Your task to perform on an android device: Search for sushi restaurants on Maps Image 0: 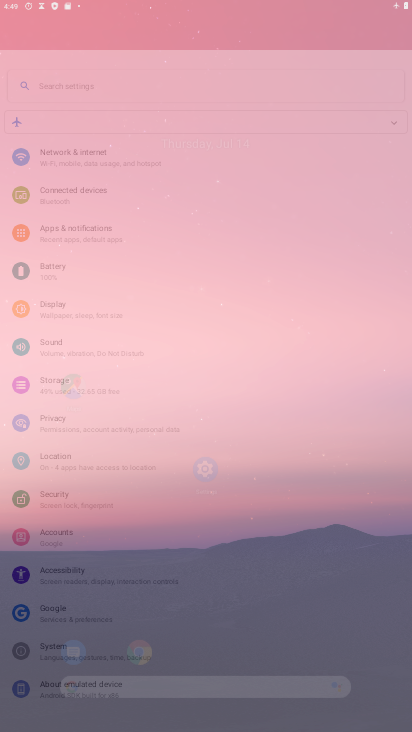
Step 0: drag from (301, 705) to (227, 230)
Your task to perform on an android device: Search for sushi restaurants on Maps Image 1: 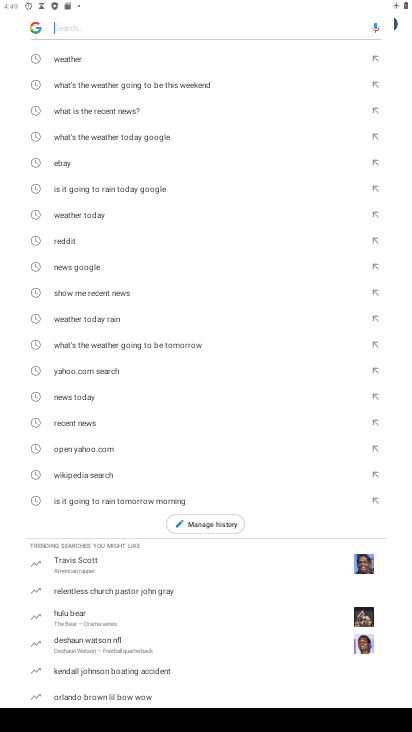
Step 1: press back button
Your task to perform on an android device: Search for sushi restaurants on Maps Image 2: 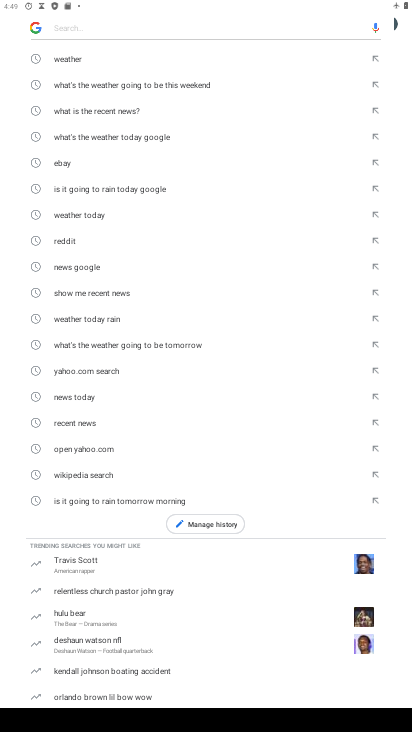
Step 2: press back button
Your task to perform on an android device: Search for sushi restaurants on Maps Image 3: 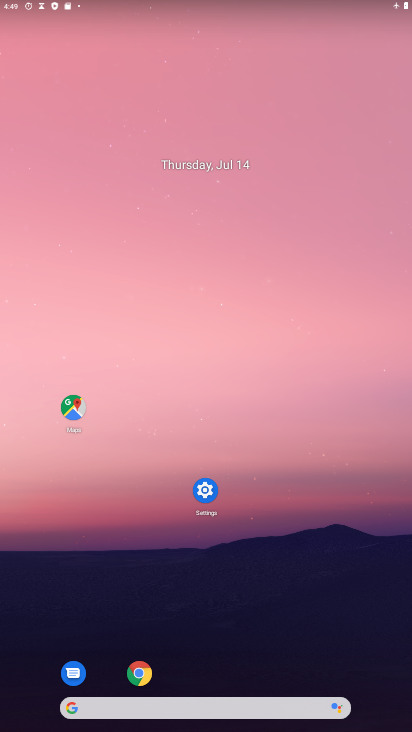
Step 3: drag from (242, 576) to (229, 250)
Your task to perform on an android device: Search for sushi restaurants on Maps Image 4: 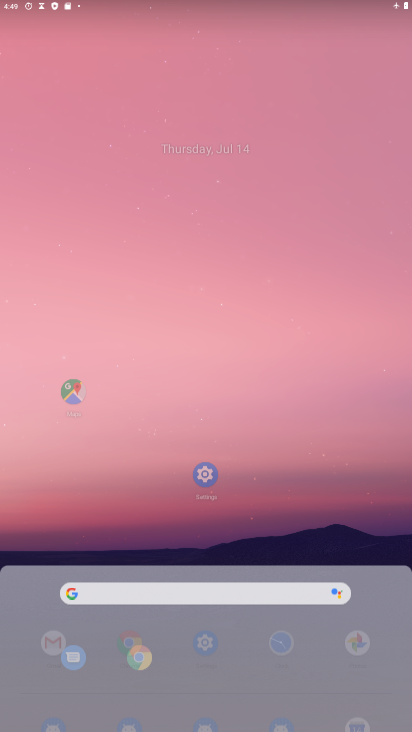
Step 4: drag from (242, 543) to (212, 390)
Your task to perform on an android device: Search for sushi restaurants on Maps Image 5: 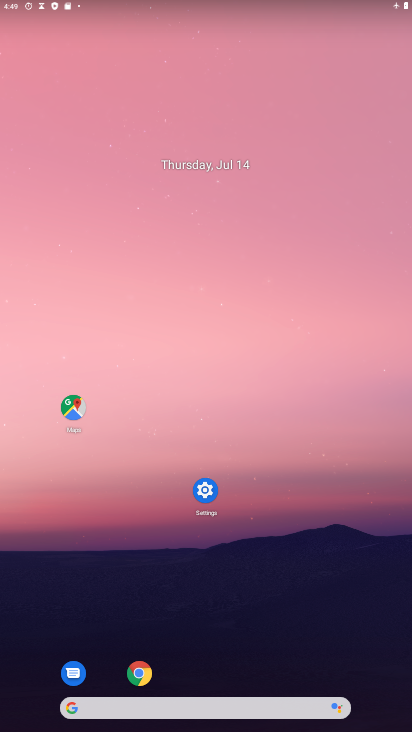
Step 5: drag from (261, 666) to (132, 9)
Your task to perform on an android device: Search for sushi restaurants on Maps Image 6: 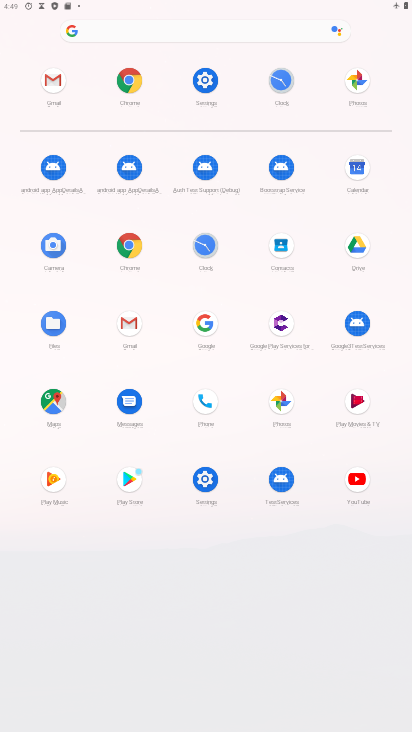
Step 6: click (47, 412)
Your task to perform on an android device: Search for sushi restaurants on Maps Image 7: 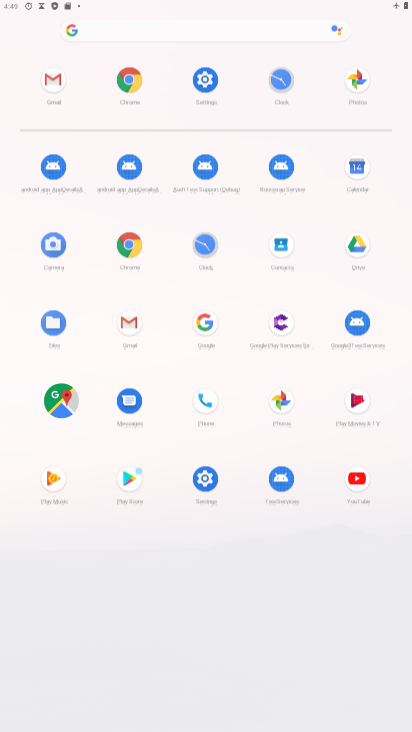
Step 7: click (58, 391)
Your task to perform on an android device: Search for sushi restaurants on Maps Image 8: 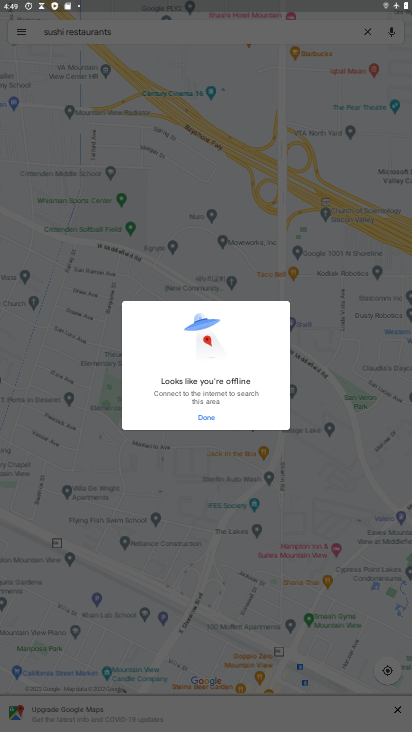
Step 8: task complete